Your task to perform on an android device: toggle notification dots Image 0: 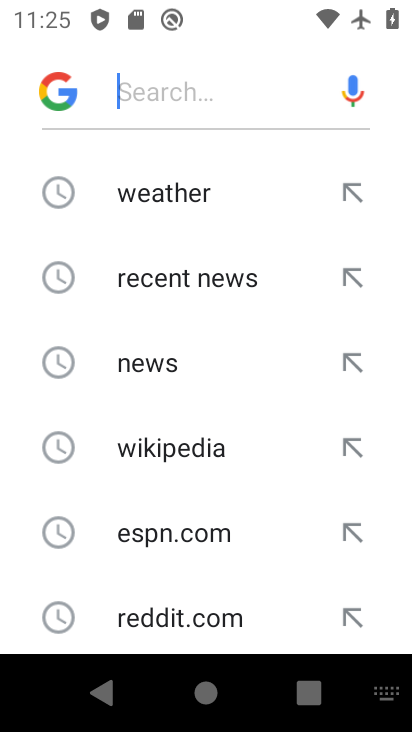
Step 0: press home button
Your task to perform on an android device: toggle notification dots Image 1: 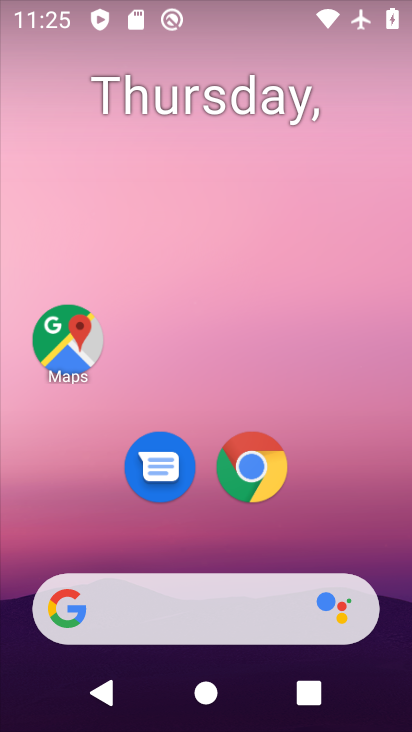
Step 1: drag from (381, 537) to (410, 480)
Your task to perform on an android device: toggle notification dots Image 2: 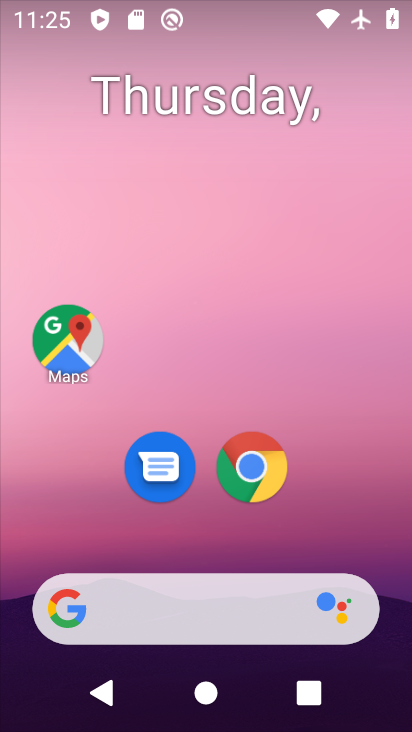
Step 2: drag from (353, 562) to (375, 16)
Your task to perform on an android device: toggle notification dots Image 3: 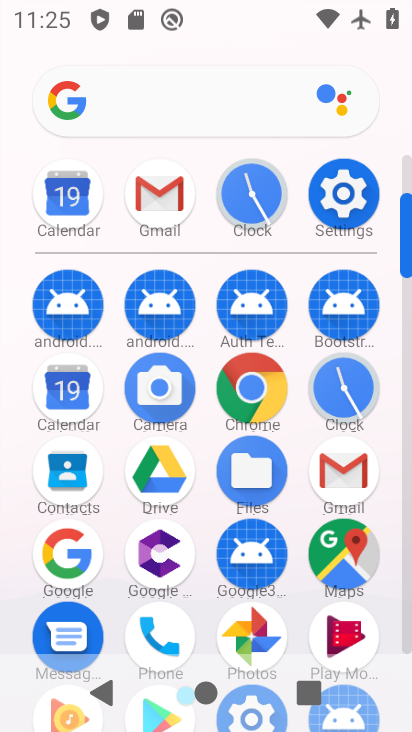
Step 3: click (346, 205)
Your task to perform on an android device: toggle notification dots Image 4: 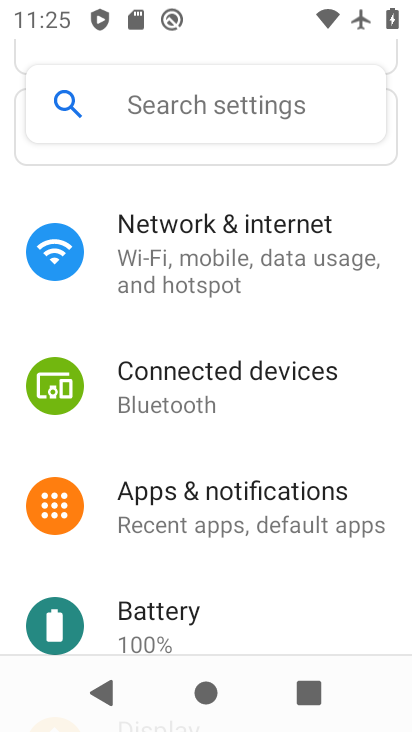
Step 4: click (206, 515)
Your task to perform on an android device: toggle notification dots Image 5: 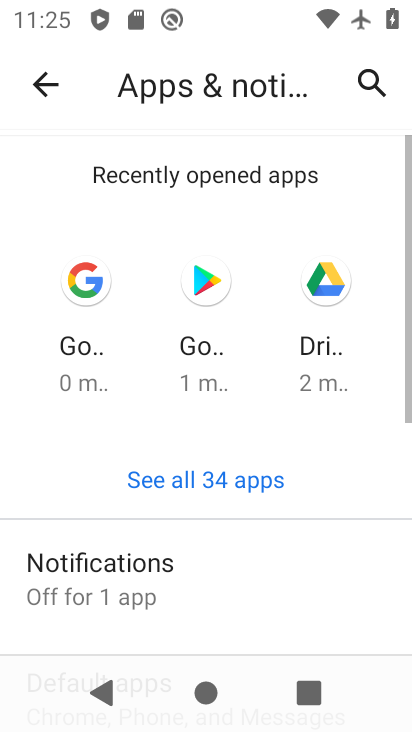
Step 5: drag from (216, 570) to (215, 198)
Your task to perform on an android device: toggle notification dots Image 6: 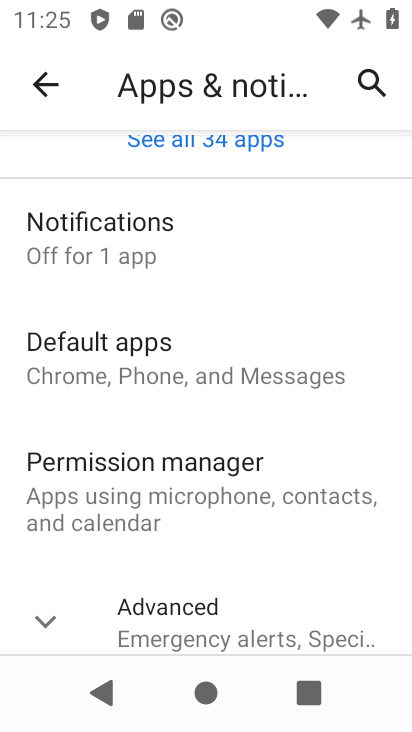
Step 6: click (96, 239)
Your task to perform on an android device: toggle notification dots Image 7: 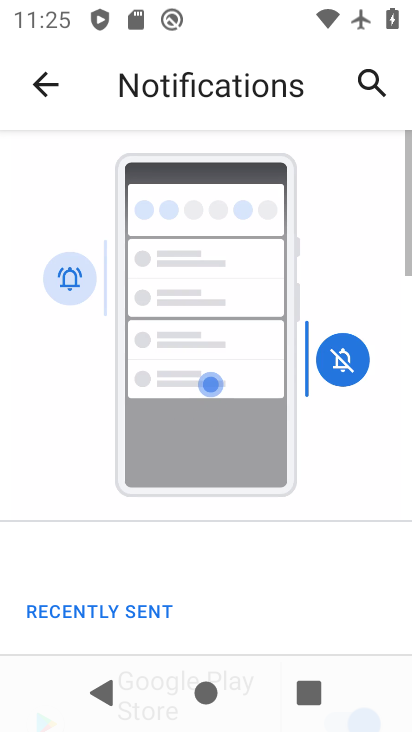
Step 7: drag from (257, 567) to (225, 98)
Your task to perform on an android device: toggle notification dots Image 8: 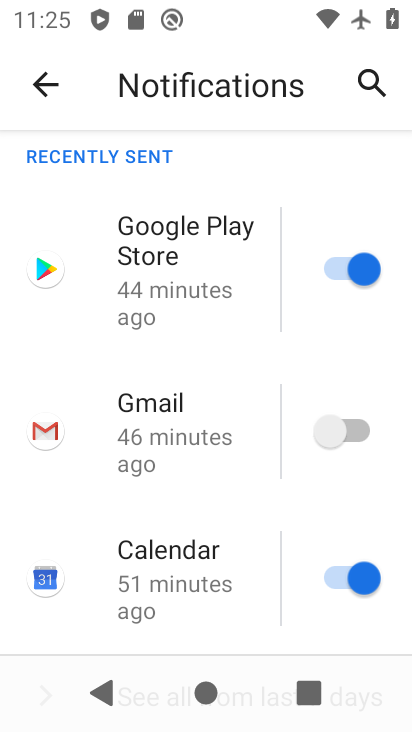
Step 8: drag from (195, 516) to (198, 129)
Your task to perform on an android device: toggle notification dots Image 9: 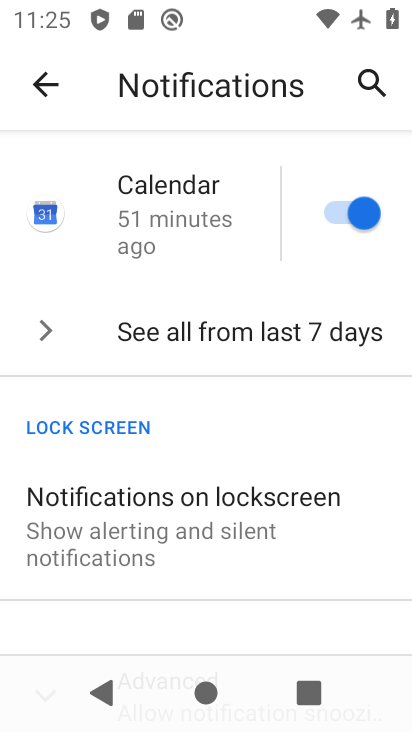
Step 9: drag from (142, 467) to (177, 125)
Your task to perform on an android device: toggle notification dots Image 10: 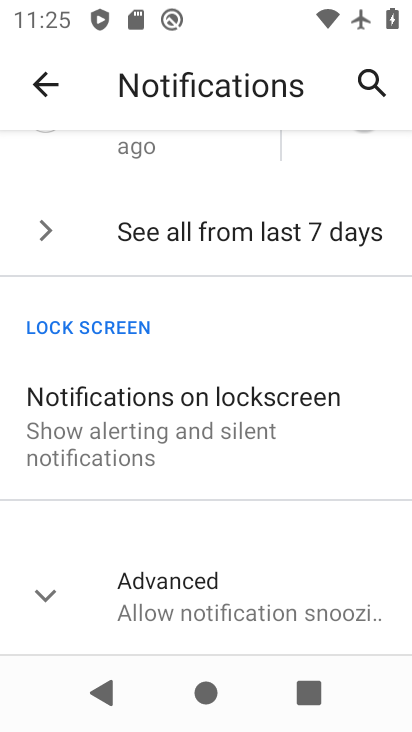
Step 10: click (50, 602)
Your task to perform on an android device: toggle notification dots Image 11: 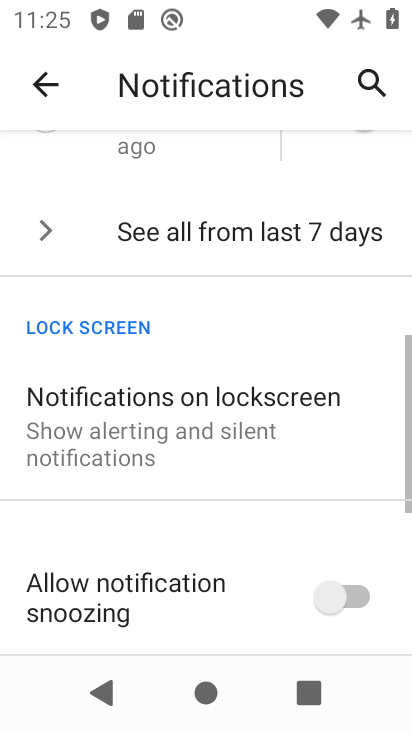
Step 11: drag from (150, 602) to (194, 93)
Your task to perform on an android device: toggle notification dots Image 12: 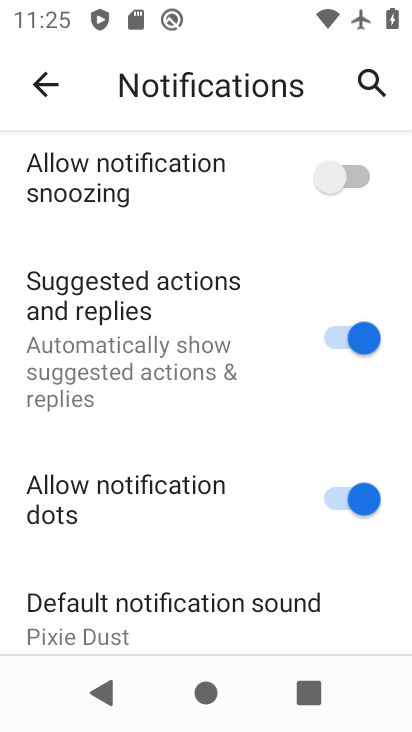
Step 12: click (362, 504)
Your task to perform on an android device: toggle notification dots Image 13: 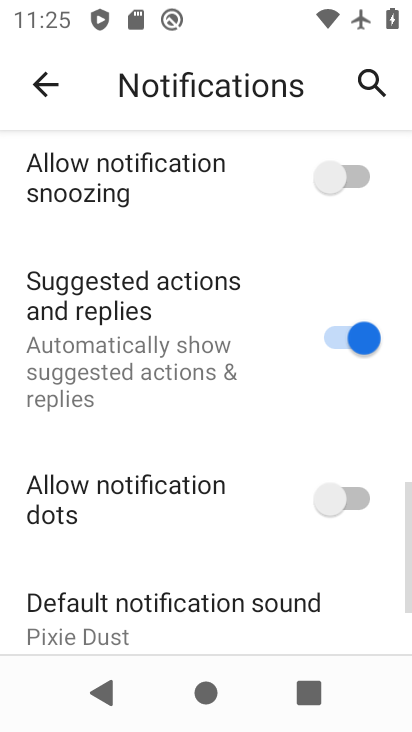
Step 13: task complete